Your task to perform on an android device: change the clock display to digital Image 0: 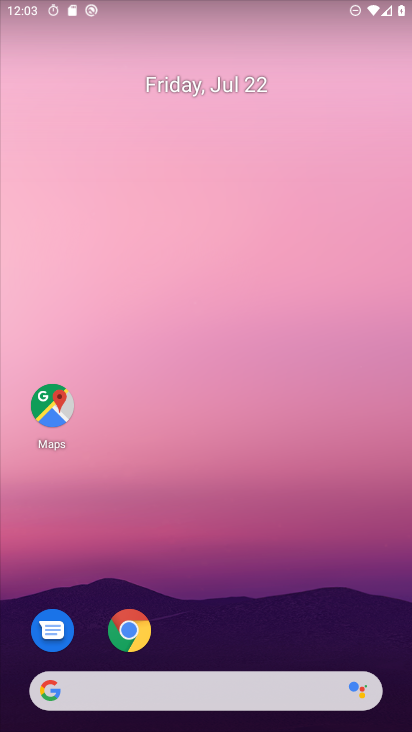
Step 0: press home button
Your task to perform on an android device: change the clock display to digital Image 1: 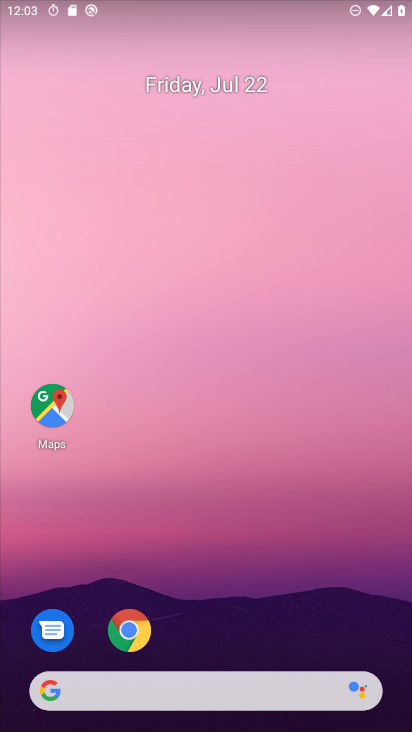
Step 1: drag from (239, 624) to (214, 198)
Your task to perform on an android device: change the clock display to digital Image 2: 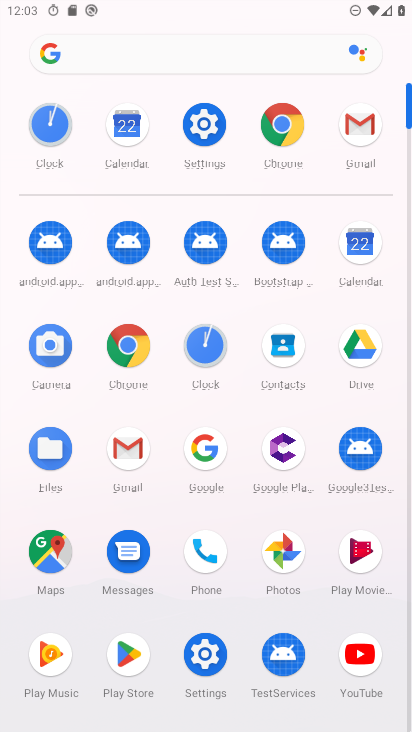
Step 2: click (210, 127)
Your task to perform on an android device: change the clock display to digital Image 3: 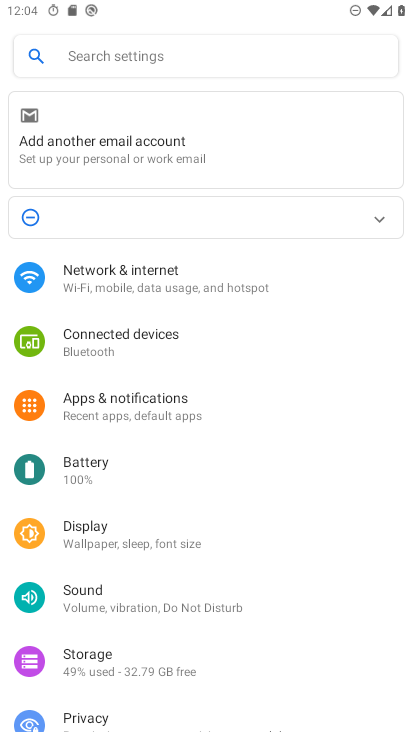
Step 3: press home button
Your task to perform on an android device: change the clock display to digital Image 4: 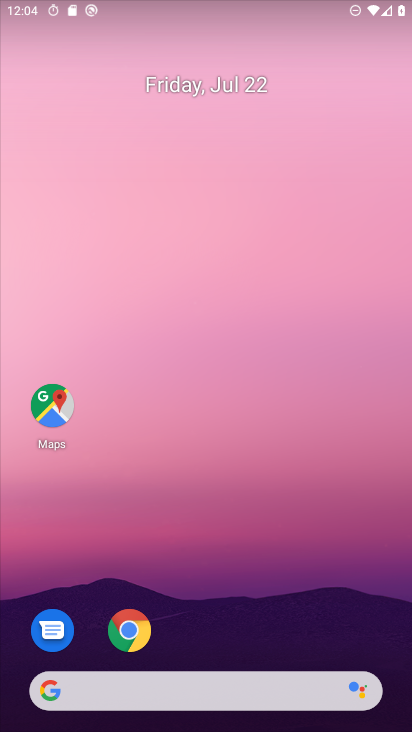
Step 4: drag from (250, 583) to (283, 104)
Your task to perform on an android device: change the clock display to digital Image 5: 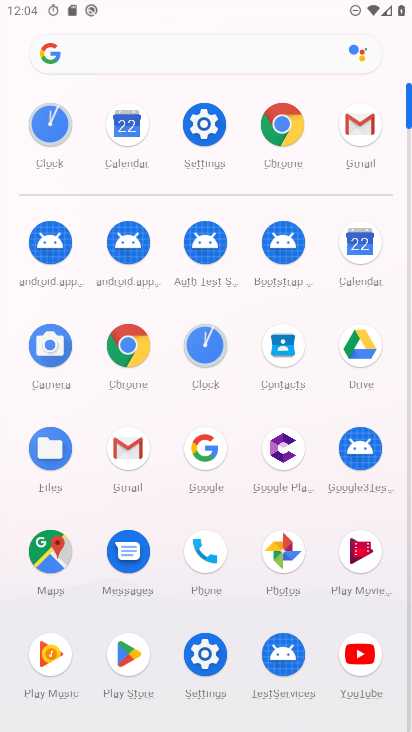
Step 5: click (50, 121)
Your task to perform on an android device: change the clock display to digital Image 6: 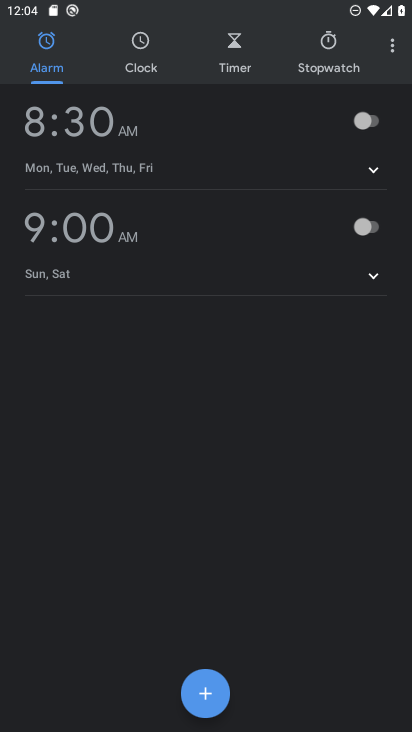
Step 6: click (387, 41)
Your task to perform on an android device: change the clock display to digital Image 7: 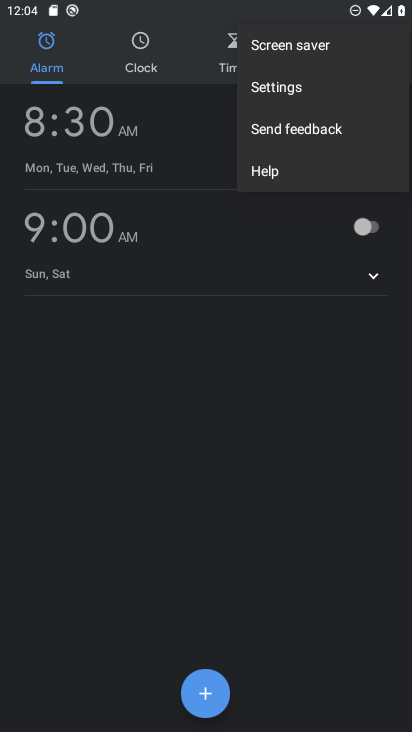
Step 7: click (286, 80)
Your task to perform on an android device: change the clock display to digital Image 8: 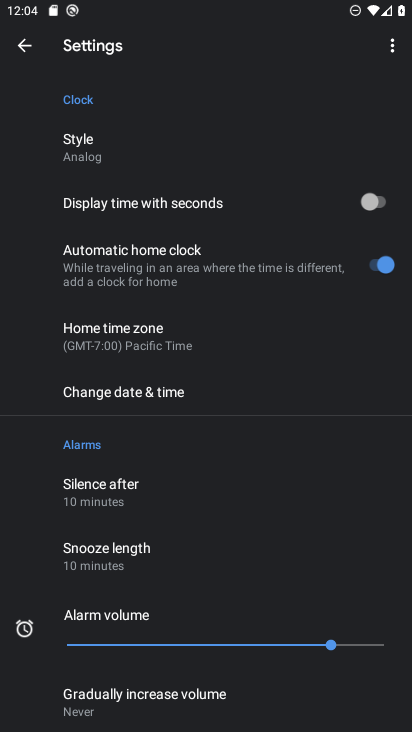
Step 8: click (98, 154)
Your task to perform on an android device: change the clock display to digital Image 9: 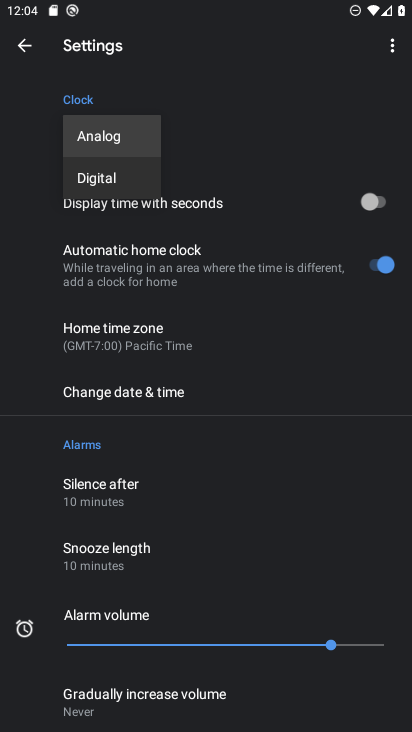
Step 9: click (105, 184)
Your task to perform on an android device: change the clock display to digital Image 10: 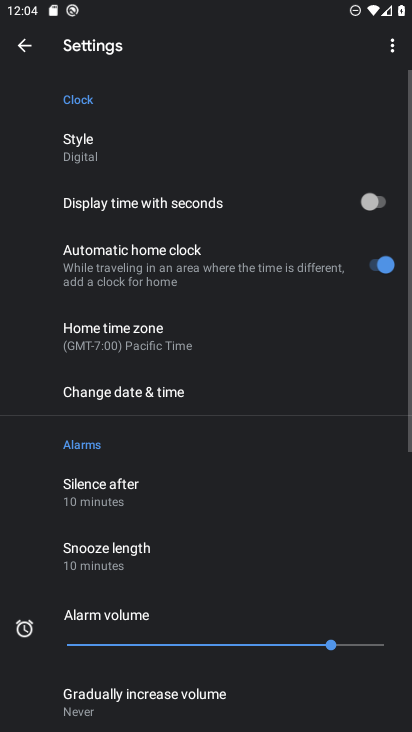
Step 10: task complete